Your task to perform on an android device: set default search engine in the chrome app Image 0: 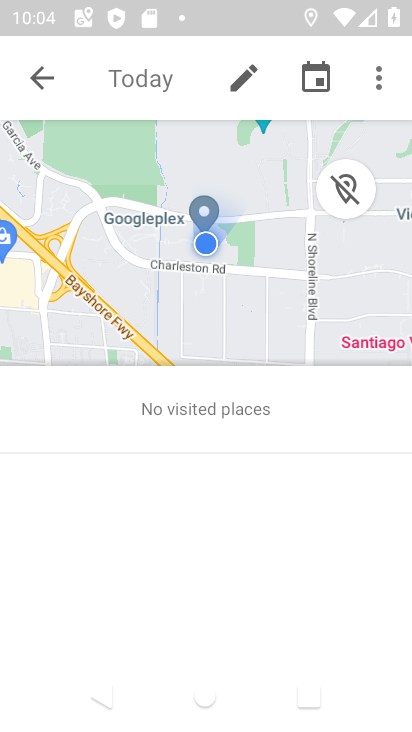
Step 0: press home button
Your task to perform on an android device: set default search engine in the chrome app Image 1: 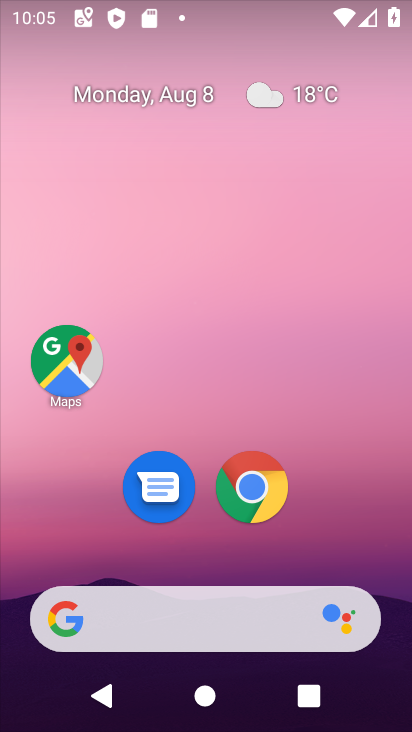
Step 1: click (252, 488)
Your task to perform on an android device: set default search engine in the chrome app Image 2: 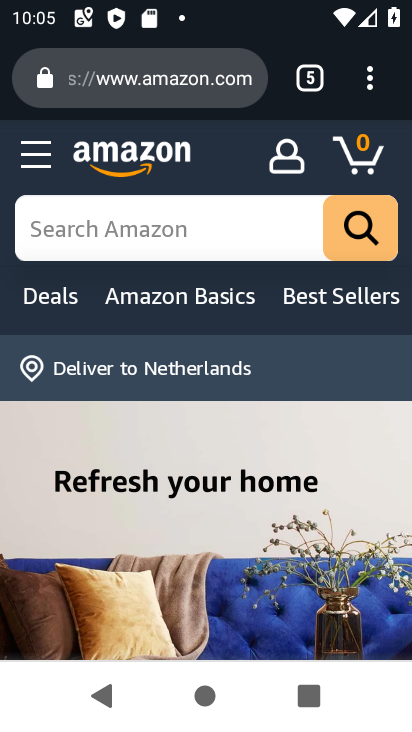
Step 2: drag from (371, 90) to (271, 544)
Your task to perform on an android device: set default search engine in the chrome app Image 3: 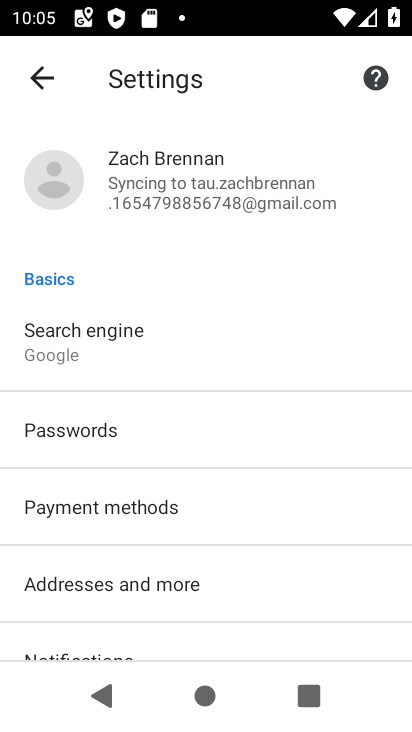
Step 3: click (69, 348)
Your task to perform on an android device: set default search engine in the chrome app Image 4: 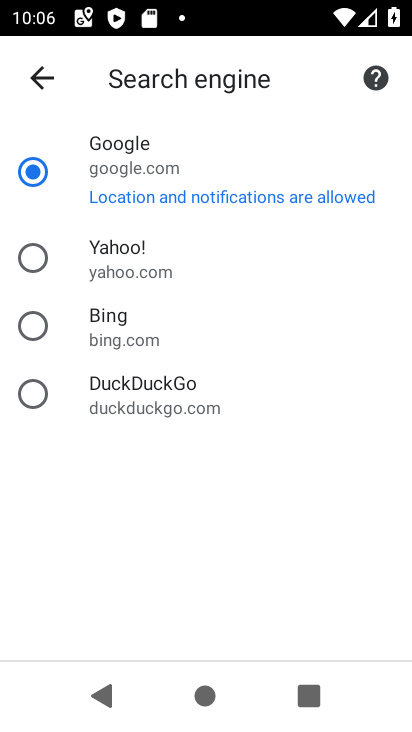
Step 4: click (38, 330)
Your task to perform on an android device: set default search engine in the chrome app Image 5: 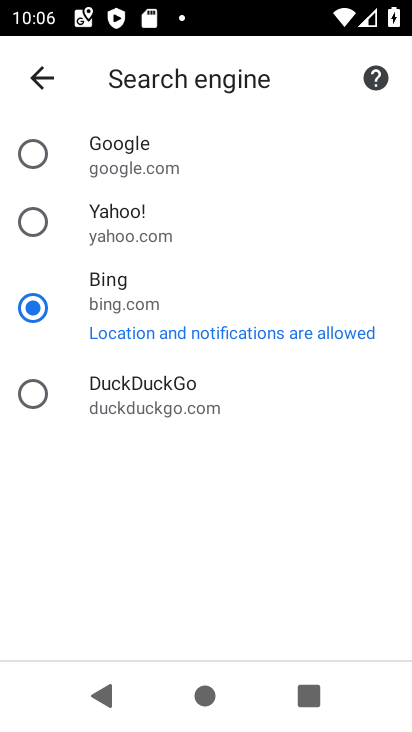
Step 5: task complete